Your task to perform on an android device: Search for Mexican restaurants on Maps Image 0: 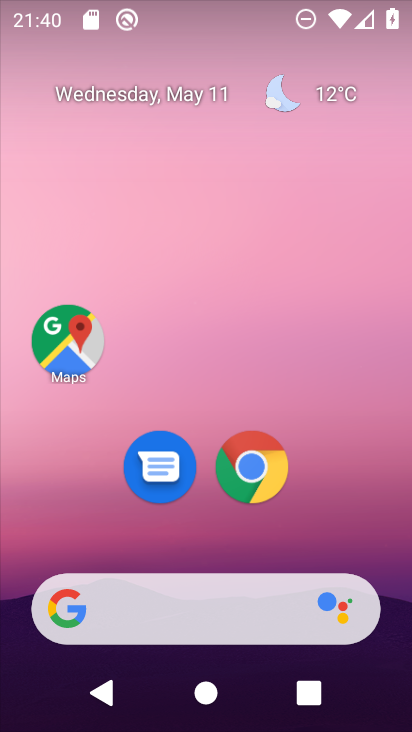
Step 0: press home button
Your task to perform on an android device: Search for Mexican restaurants on Maps Image 1: 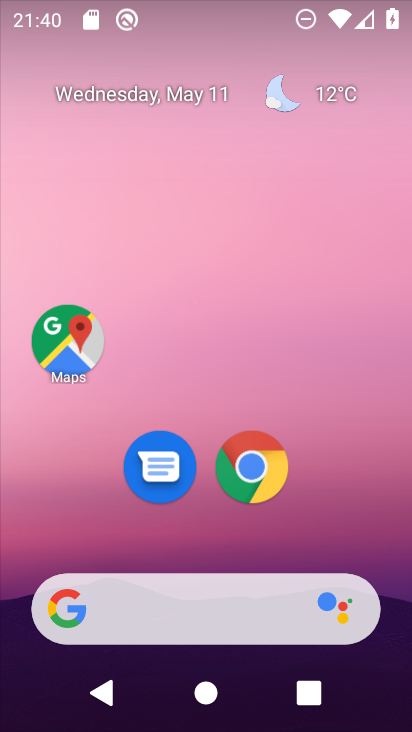
Step 1: click (63, 341)
Your task to perform on an android device: Search for Mexican restaurants on Maps Image 2: 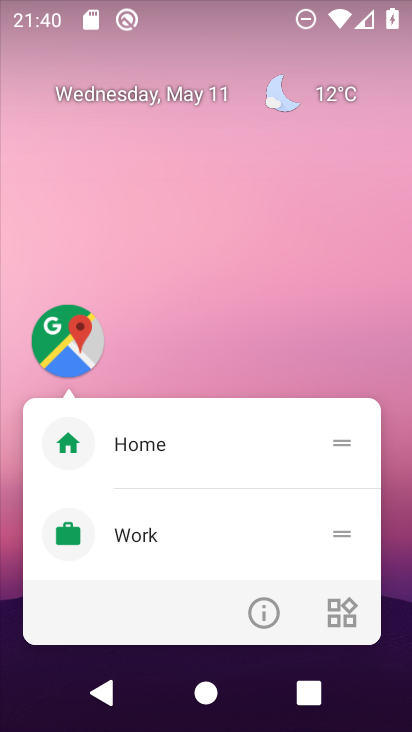
Step 2: click (147, 315)
Your task to perform on an android device: Search for Mexican restaurants on Maps Image 3: 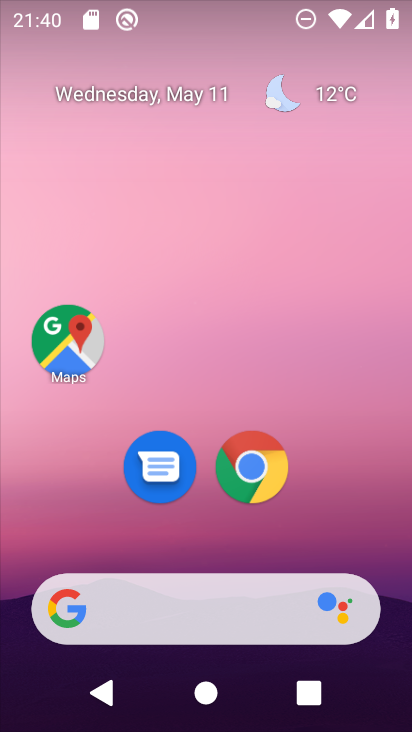
Step 3: click (65, 345)
Your task to perform on an android device: Search for Mexican restaurants on Maps Image 4: 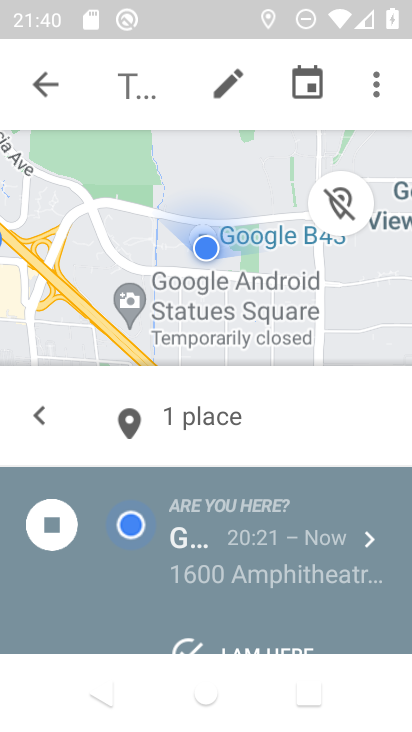
Step 4: task complete